Your task to perform on an android device: show emergency info Image 0: 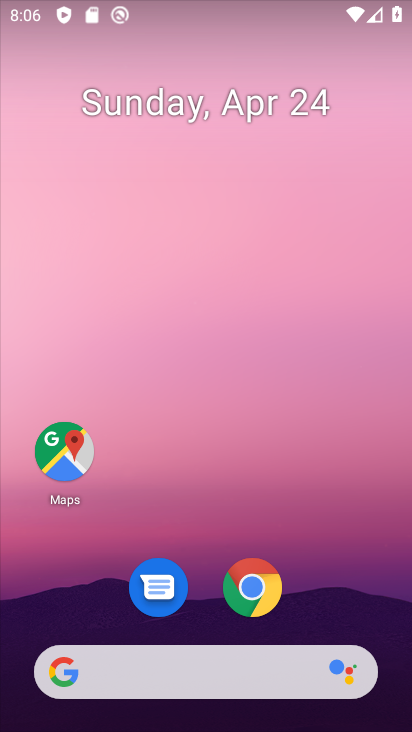
Step 0: drag from (211, 543) to (307, 56)
Your task to perform on an android device: show emergency info Image 1: 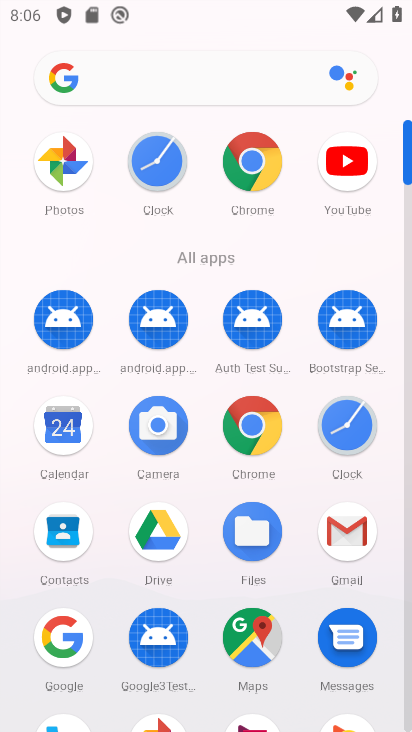
Step 1: drag from (200, 637) to (326, 82)
Your task to perform on an android device: show emergency info Image 2: 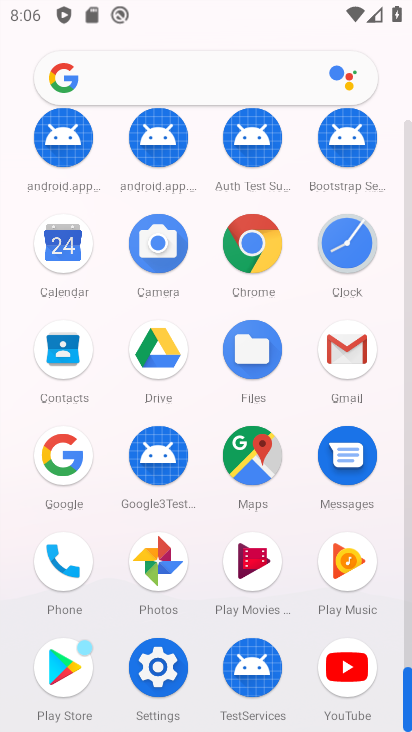
Step 2: click (164, 628)
Your task to perform on an android device: show emergency info Image 3: 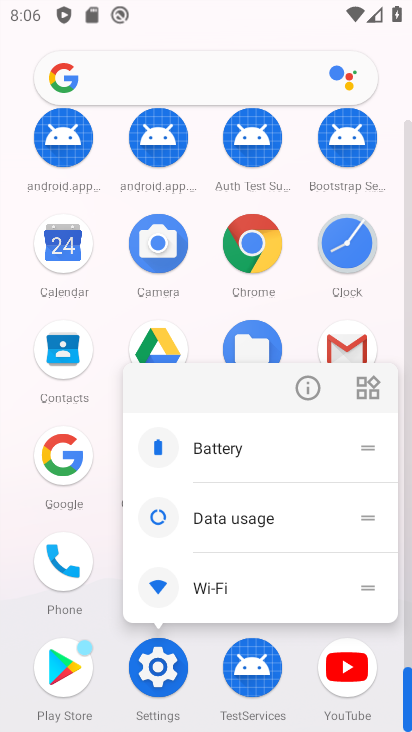
Step 3: click (157, 647)
Your task to perform on an android device: show emergency info Image 4: 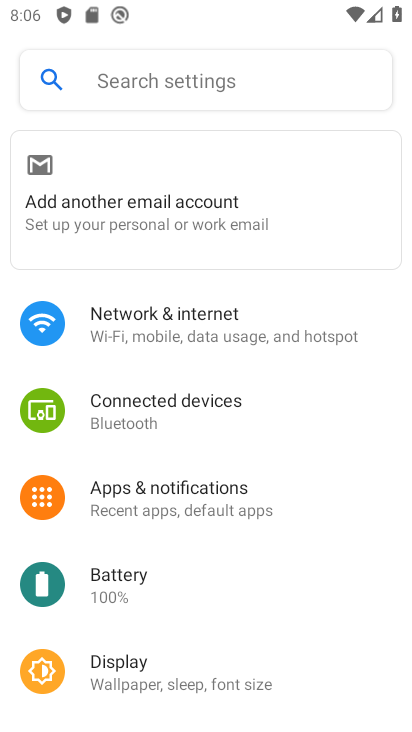
Step 4: drag from (115, 627) to (260, 131)
Your task to perform on an android device: show emergency info Image 5: 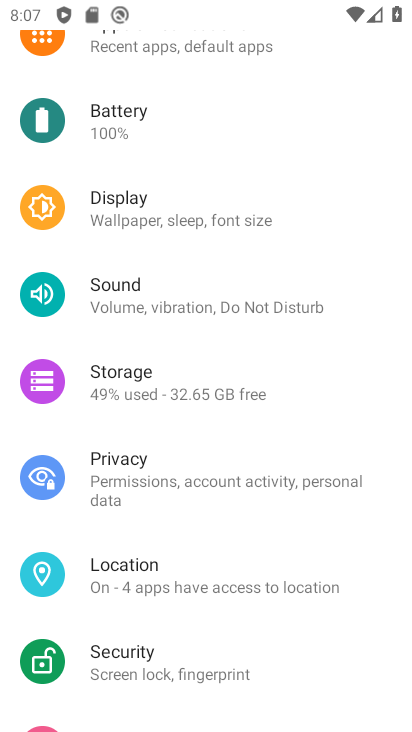
Step 5: drag from (167, 663) to (336, 43)
Your task to perform on an android device: show emergency info Image 6: 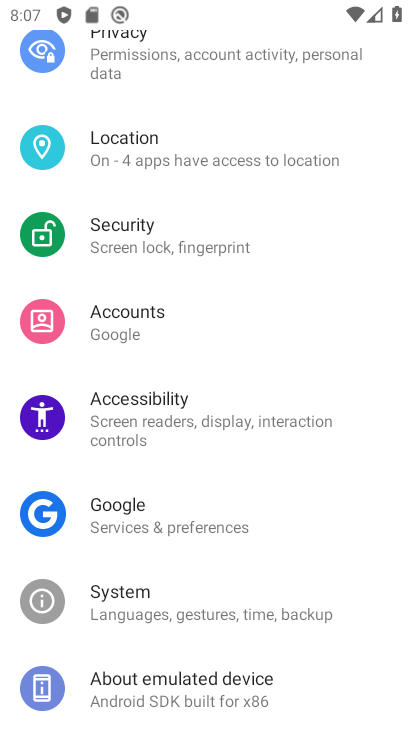
Step 6: drag from (187, 669) to (299, 74)
Your task to perform on an android device: show emergency info Image 7: 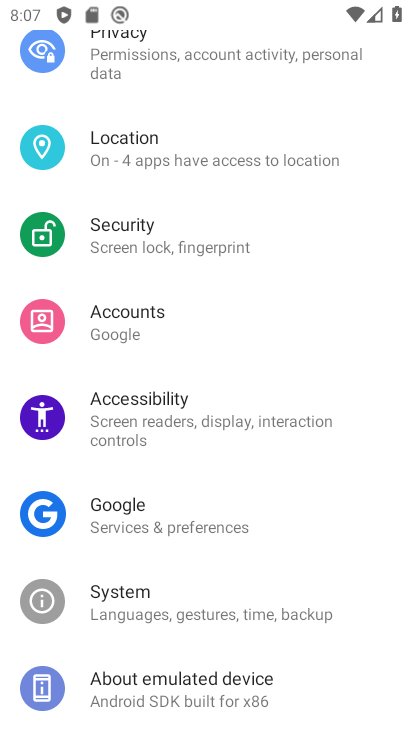
Step 7: click (142, 689)
Your task to perform on an android device: show emergency info Image 8: 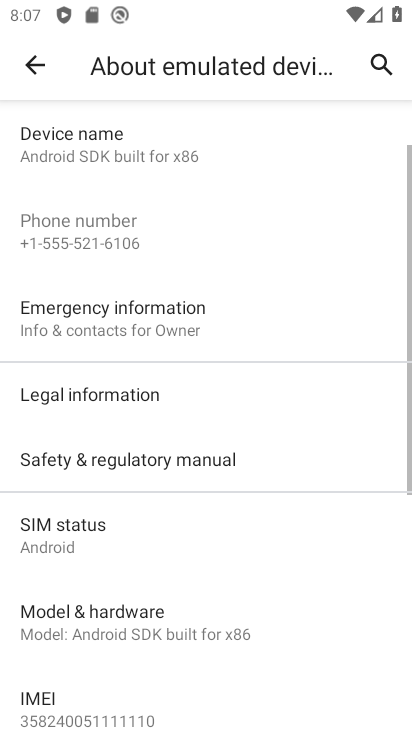
Step 8: click (168, 315)
Your task to perform on an android device: show emergency info Image 9: 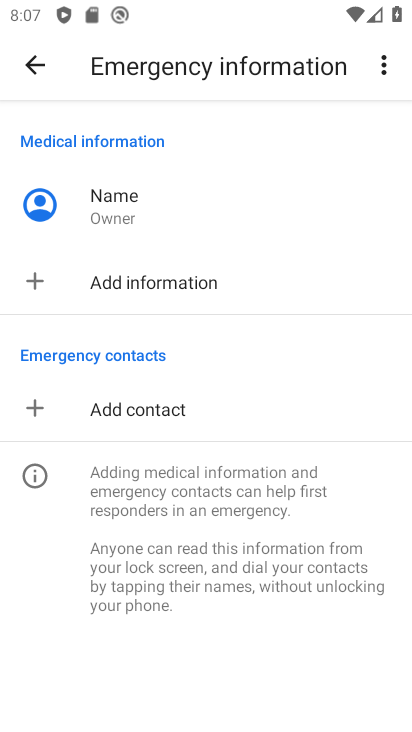
Step 9: task complete